Your task to perform on an android device: Open maps Image 0: 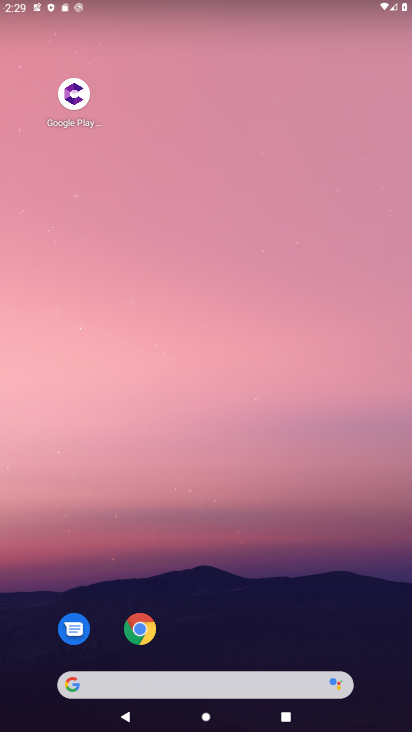
Step 0: drag from (52, 525) to (409, 570)
Your task to perform on an android device: Open maps Image 1: 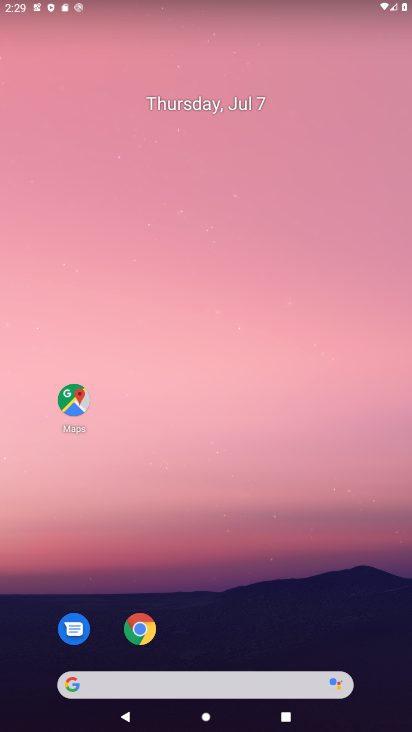
Step 1: click (90, 404)
Your task to perform on an android device: Open maps Image 2: 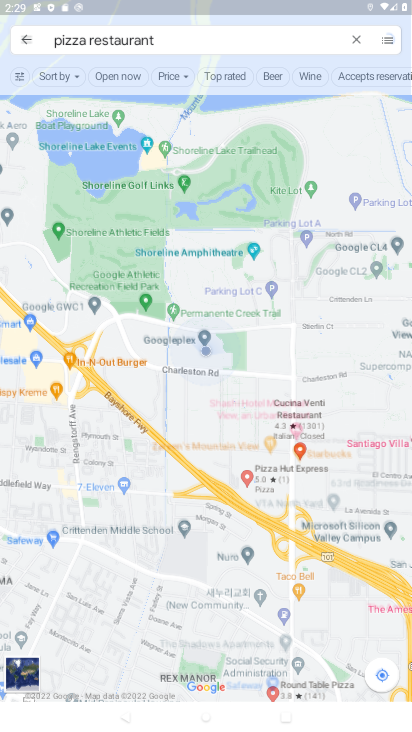
Step 2: task complete